Your task to perform on an android device: toggle javascript in the chrome app Image 0: 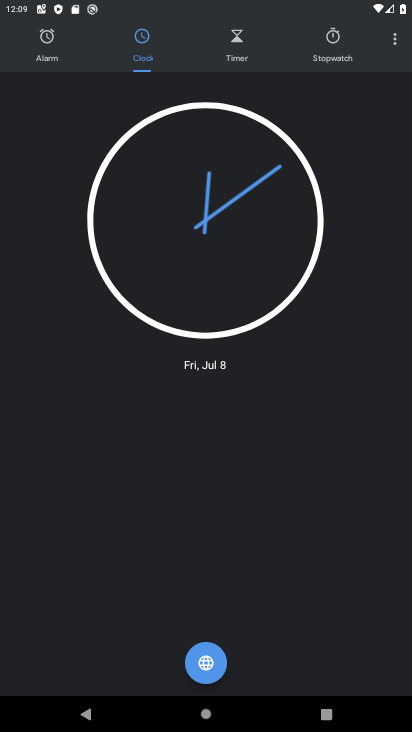
Step 0: press home button
Your task to perform on an android device: toggle javascript in the chrome app Image 1: 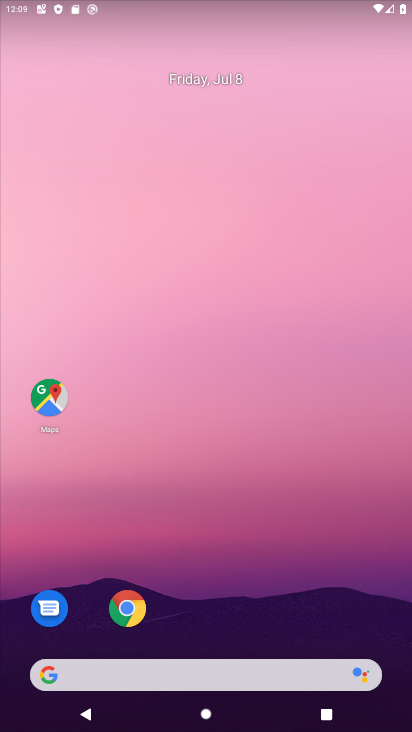
Step 1: drag from (26, 702) to (229, 2)
Your task to perform on an android device: toggle javascript in the chrome app Image 2: 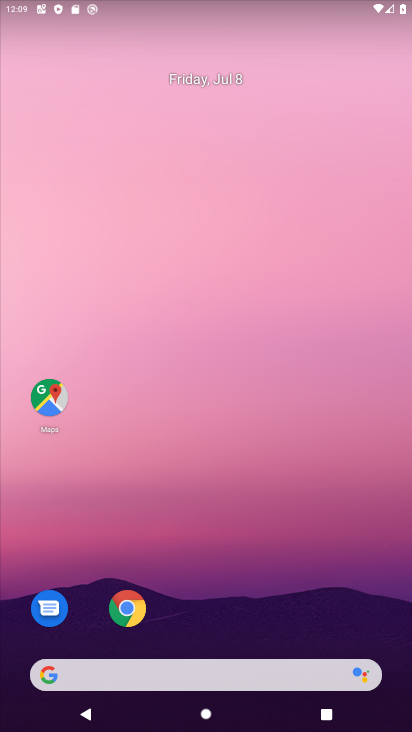
Step 2: drag from (15, 712) to (202, 80)
Your task to perform on an android device: toggle javascript in the chrome app Image 3: 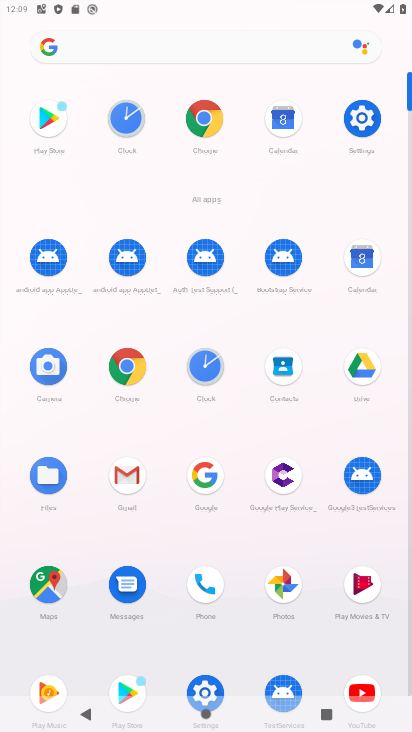
Step 3: click (207, 115)
Your task to perform on an android device: toggle javascript in the chrome app Image 4: 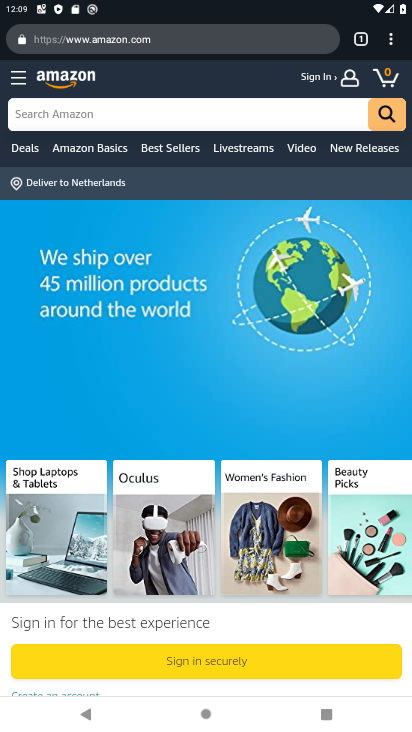
Step 4: click (387, 37)
Your task to perform on an android device: toggle javascript in the chrome app Image 5: 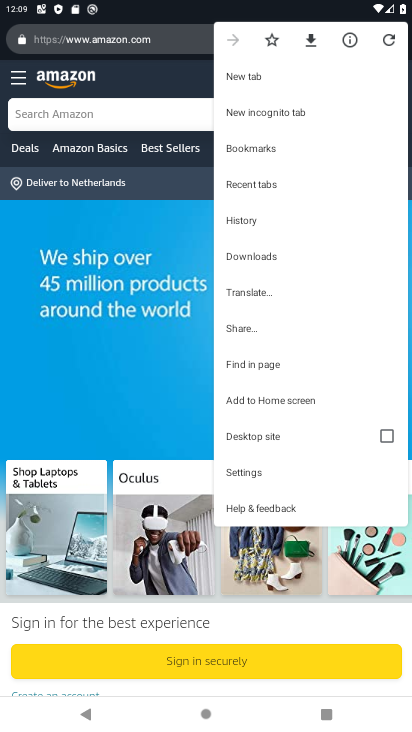
Step 5: click (253, 467)
Your task to perform on an android device: toggle javascript in the chrome app Image 6: 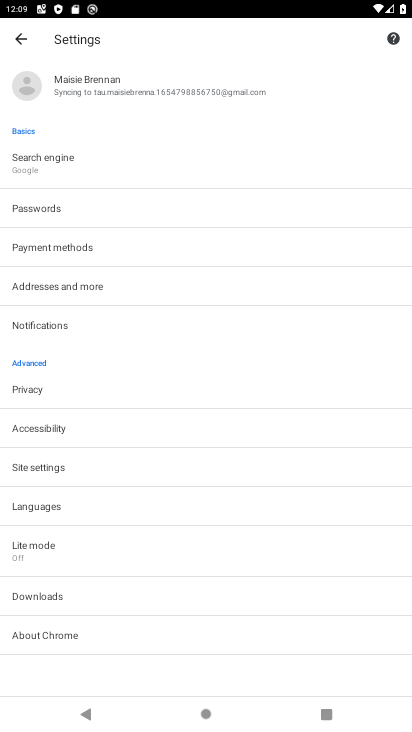
Step 6: click (34, 386)
Your task to perform on an android device: toggle javascript in the chrome app Image 7: 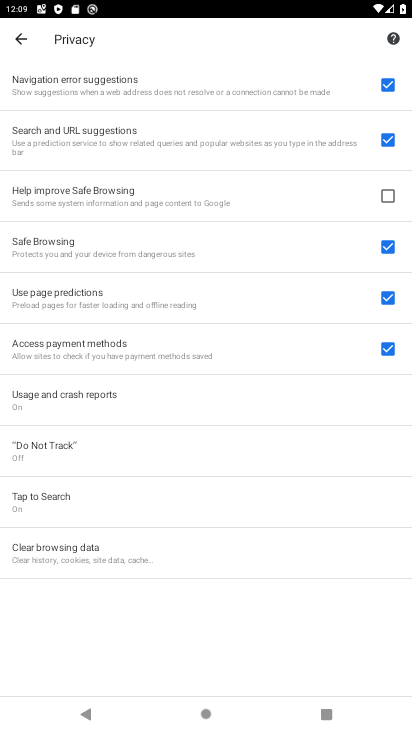
Step 7: click (19, 31)
Your task to perform on an android device: toggle javascript in the chrome app Image 8: 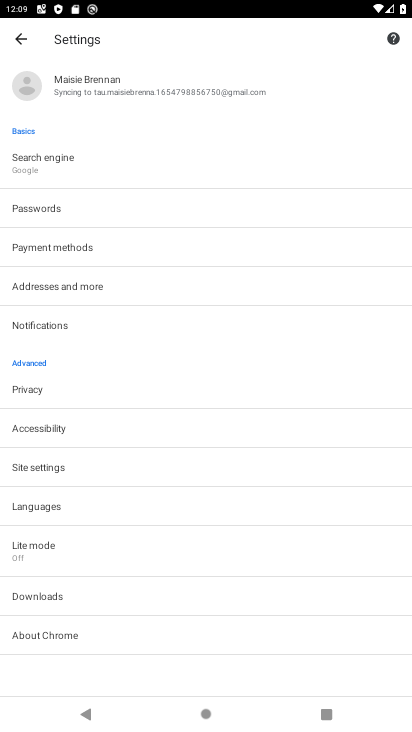
Step 8: click (39, 466)
Your task to perform on an android device: toggle javascript in the chrome app Image 9: 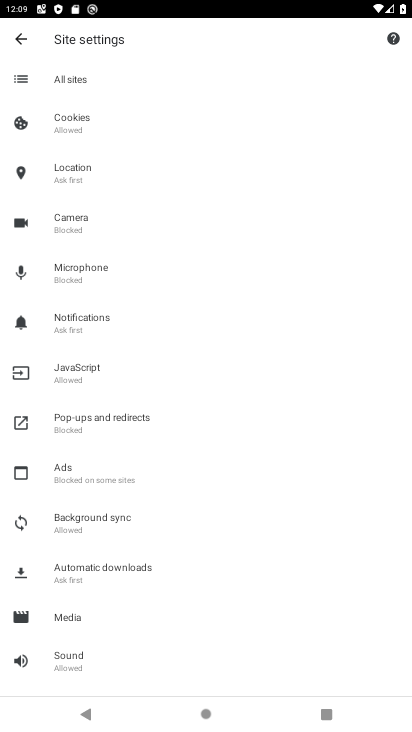
Step 9: click (103, 372)
Your task to perform on an android device: toggle javascript in the chrome app Image 10: 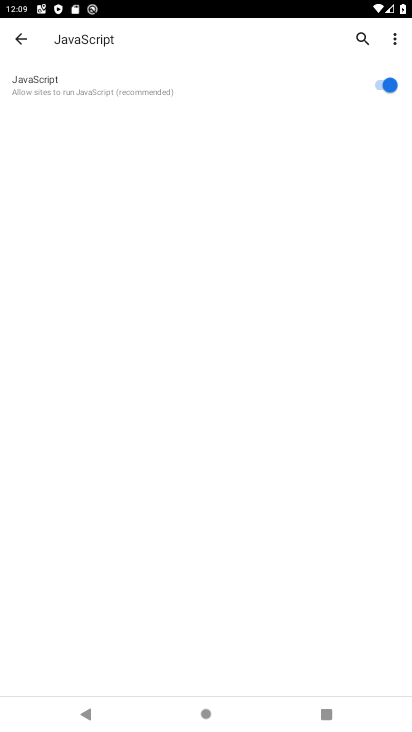
Step 10: task complete